Your task to perform on an android device: open device folders in google photos Image 0: 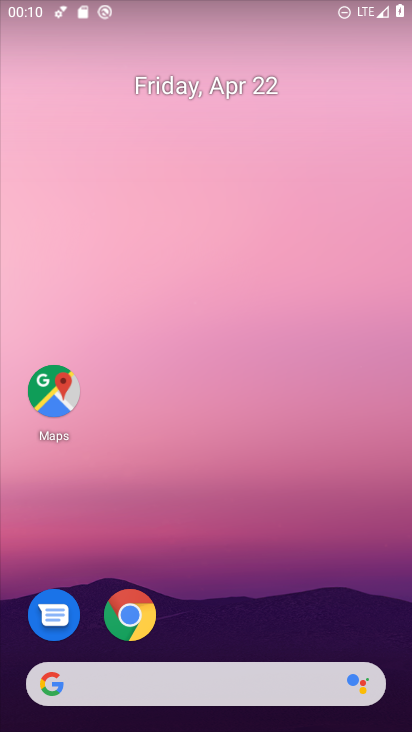
Step 0: drag from (227, 643) to (226, 18)
Your task to perform on an android device: open device folders in google photos Image 1: 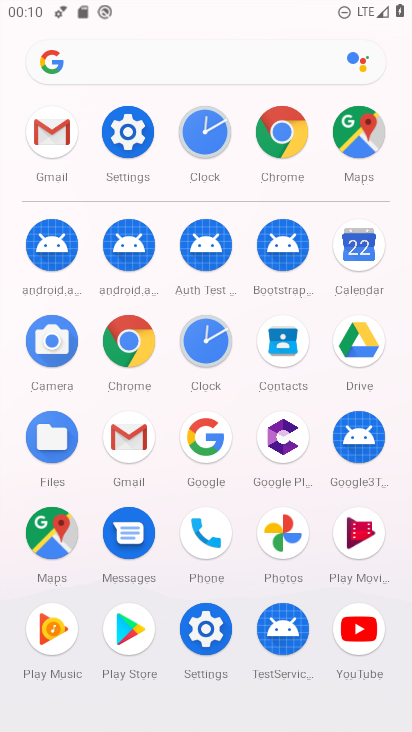
Step 1: click (283, 523)
Your task to perform on an android device: open device folders in google photos Image 2: 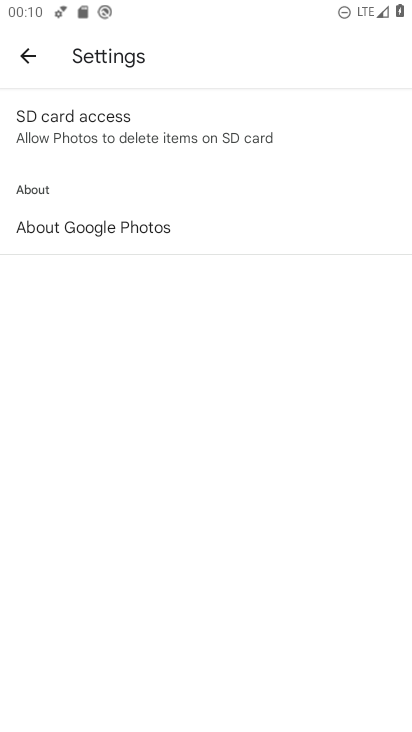
Step 2: click (31, 62)
Your task to perform on an android device: open device folders in google photos Image 3: 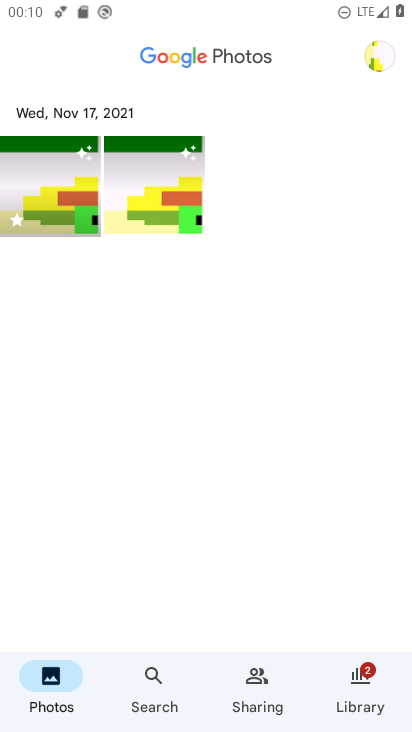
Step 3: click (155, 682)
Your task to perform on an android device: open device folders in google photos Image 4: 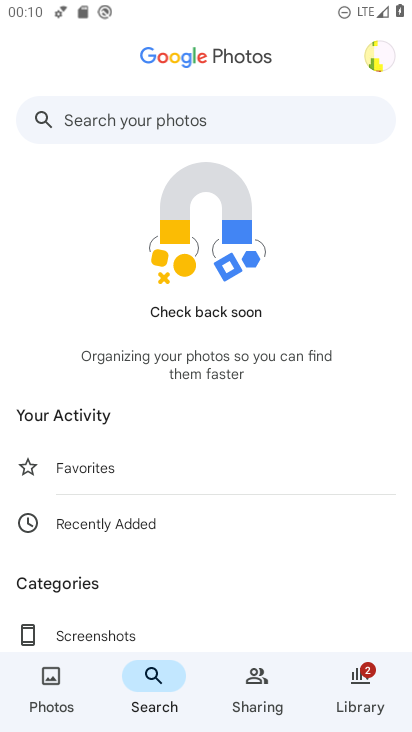
Step 4: click (122, 113)
Your task to perform on an android device: open device folders in google photos Image 5: 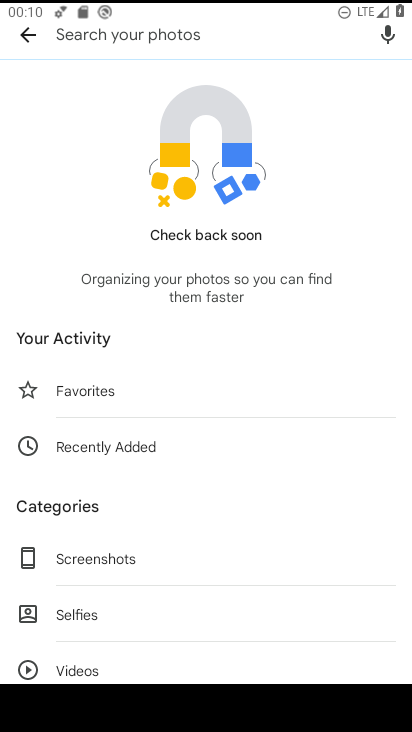
Step 5: type "device"
Your task to perform on an android device: open device folders in google photos Image 6: 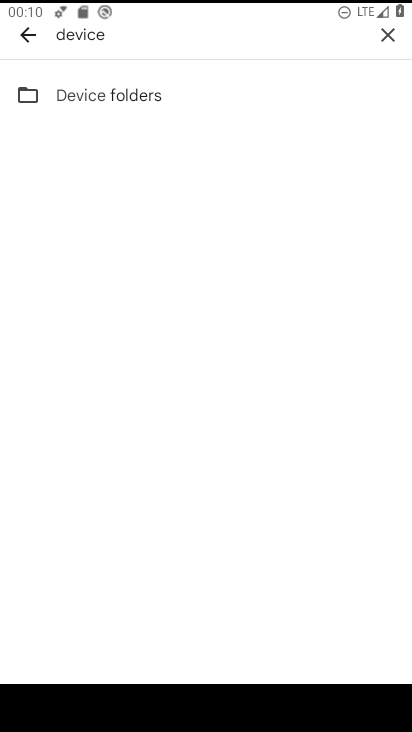
Step 6: click (181, 91)
Your task to perform on an android device: open device folders in google photos Image 7: 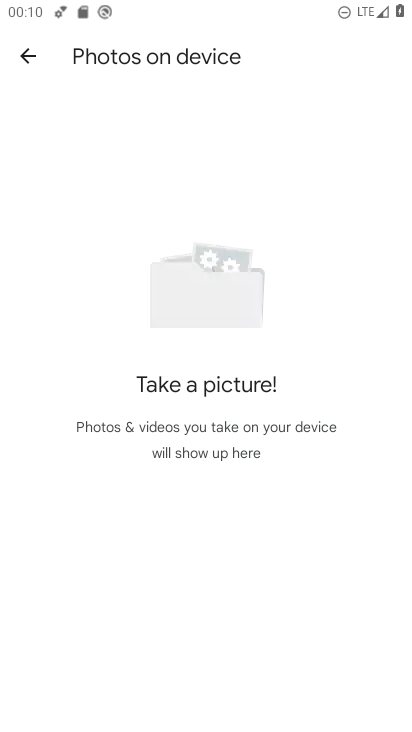
Step 7: task complete